Your task to perform on an android device: toggle sleep mode Image 0: 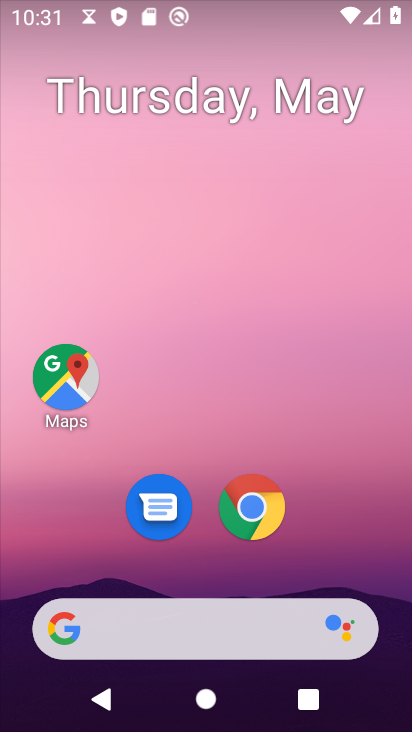
Step 0: drag from (315, 520) to (261, 56)
Your task to perform on an android device: toggle sleep mode Image 1: 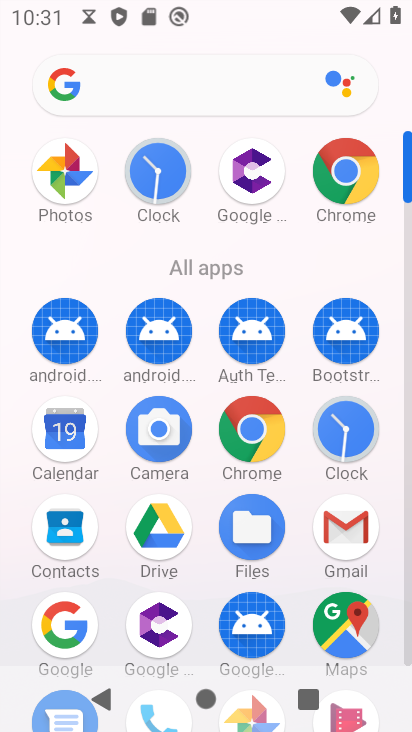
Step 1: drag from (16, 555) to (13, 214)
Your task to perform on an android device: toggle sleep mode Image 2: 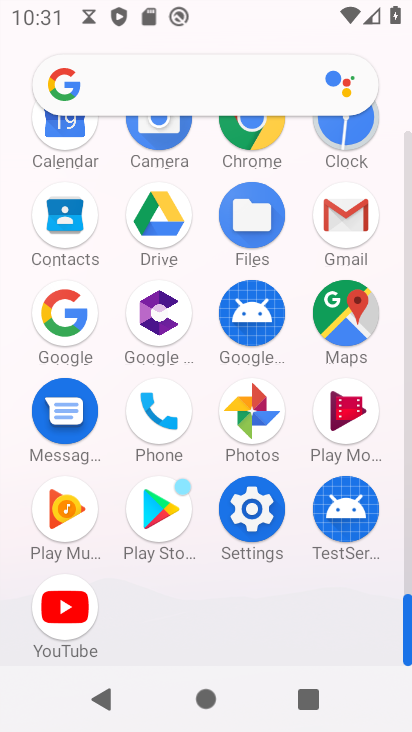
Step 2: click (249, 503)
Your task to perform on an android device: toggle sleep mode Image 3: 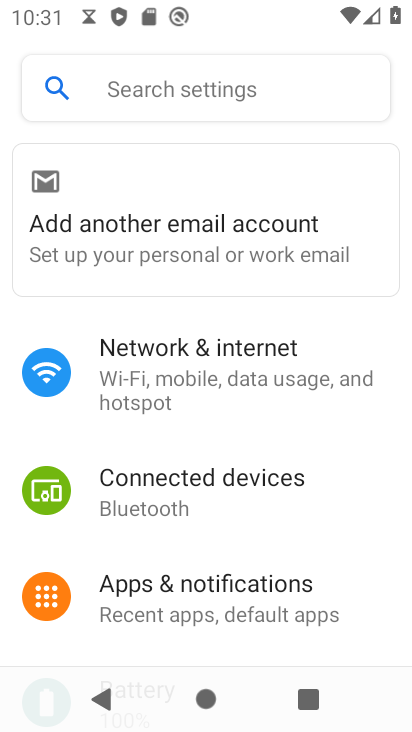
Step 3: click (257, 370)
Your task to perform on an android device: toggle sleep mode Image 4: 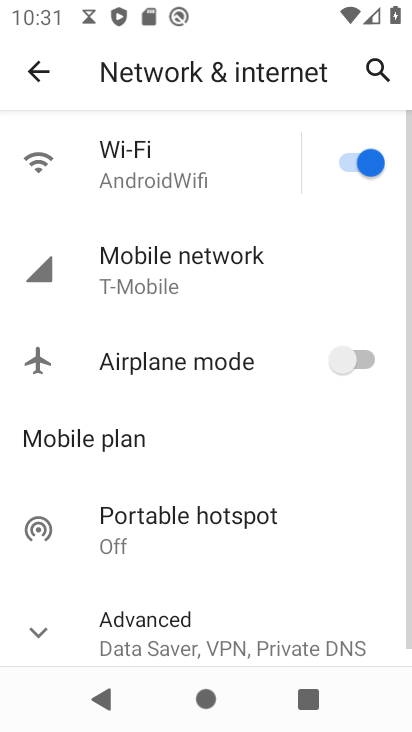
Step 4: click (48, 623)
Your task to perform on an android device: toggle sleep mode Image 5: 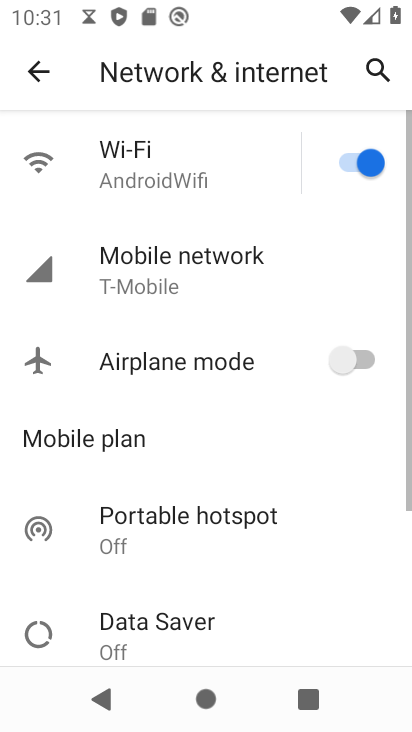
Step 5: drag from (186, 577) to (204, 178)
Your task to perform on an android device: toggle sleep mode Image 6: 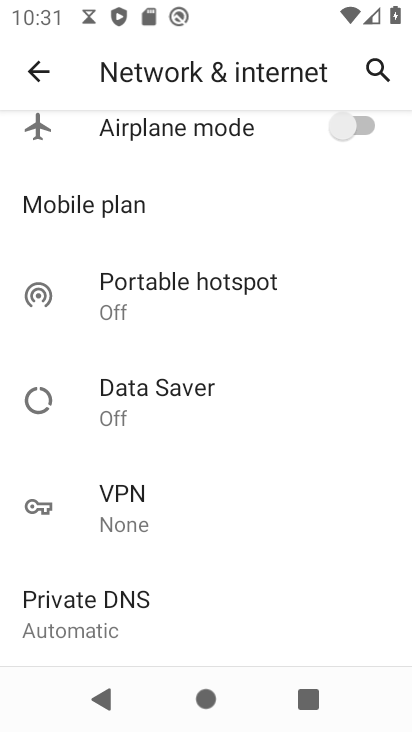
Step 6: click (39, 66)
Your task to perform on an android device: toggle sleep mode Image 7: 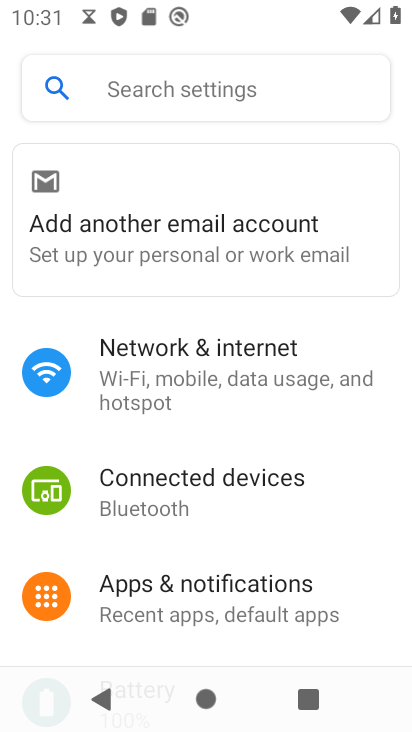
Step 7: drag from (317, 562) to (291, 178)
Your task to perform on an android device: toggle sleep mode Image 8: 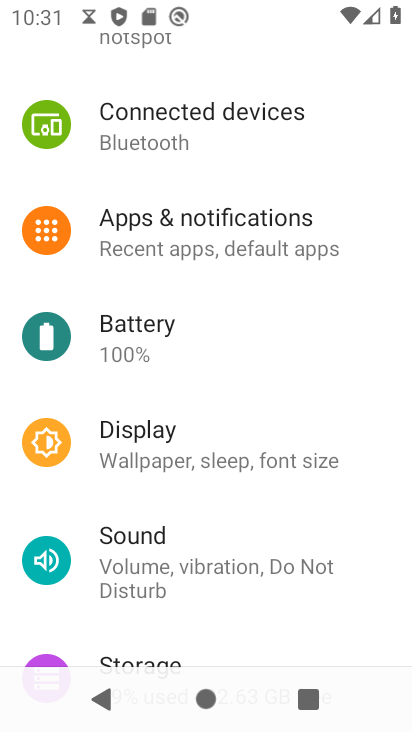
Step 8: drag from (263, 564) to (283, 212)
Your task to perform on an android device: toggle sleep mode Image 9: 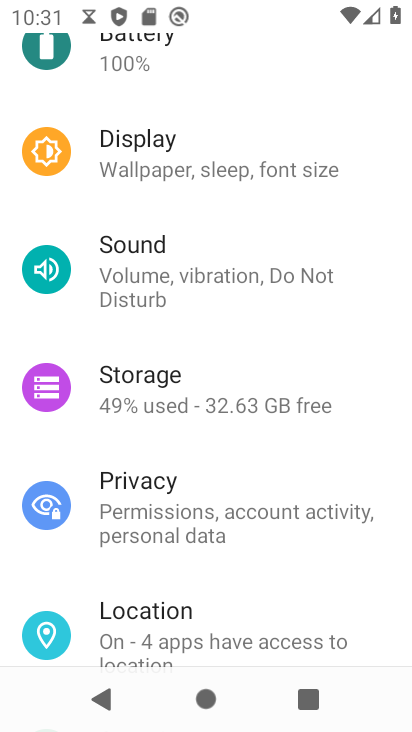
Step 9: click (218, 179)
Your task to perform on an android device: toggle sleep mode Image 10: 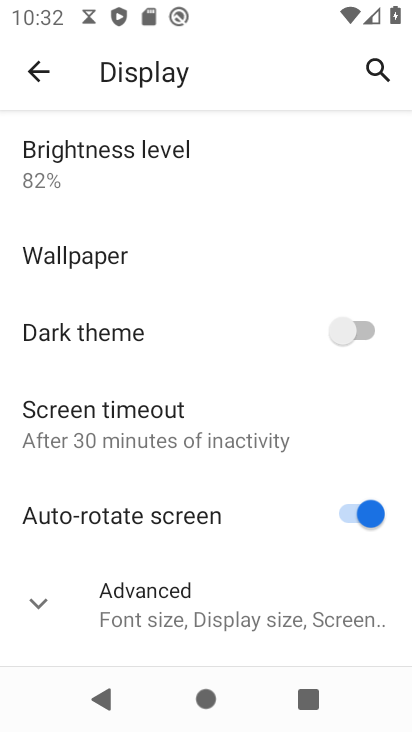
Step 10: click (46, 615)
Your task to perform on an android device: toggle sleep mode Image 11: 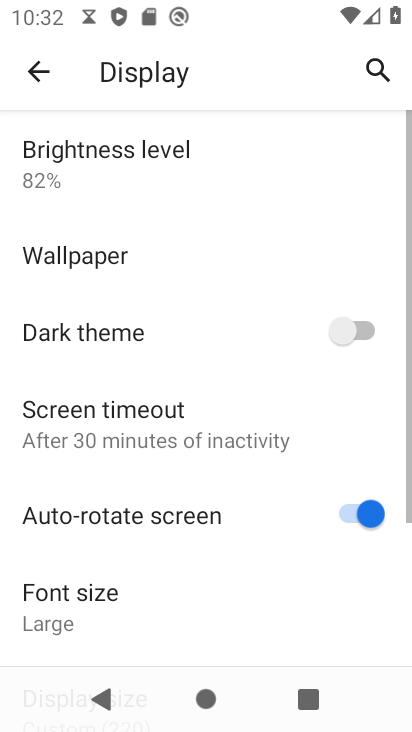
Step 11: task complete